Your task to perform on an android device: Go to notification settings Image 0: 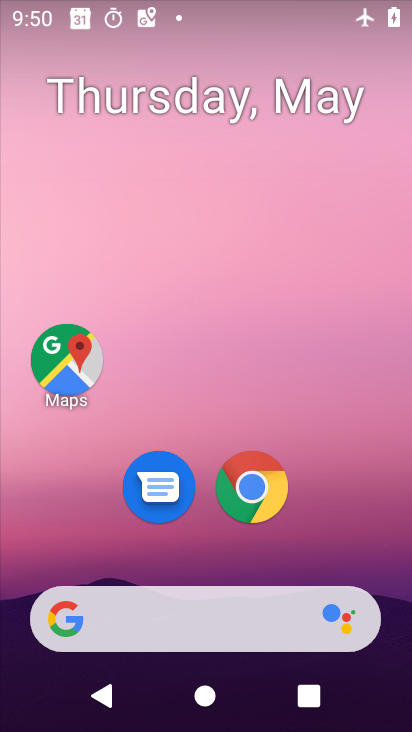
Step 0: drag from (220, 508) to (264, 20)
Your task to perform on an android device: Go to notification settings Image 1: 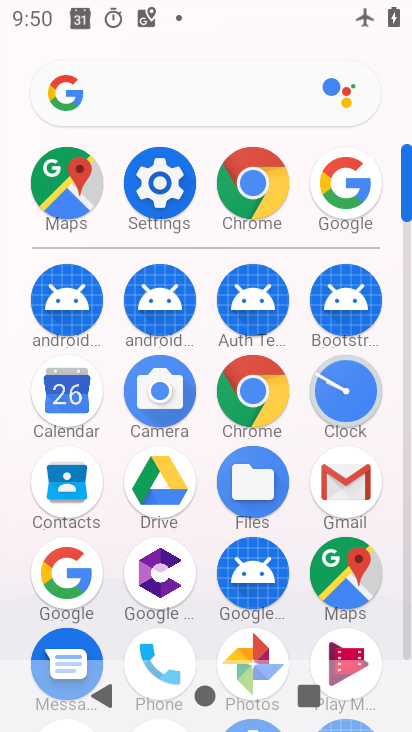
Step 1: click (184, 200)
Your task to perform on an android device: Go to notification settings Image 2: 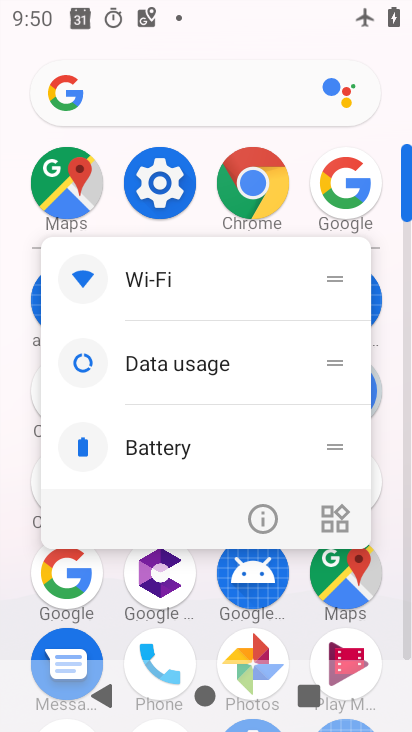
Step 2: click (183, 172)
Your task to perform on an android device: Go to notification settings Image 3: 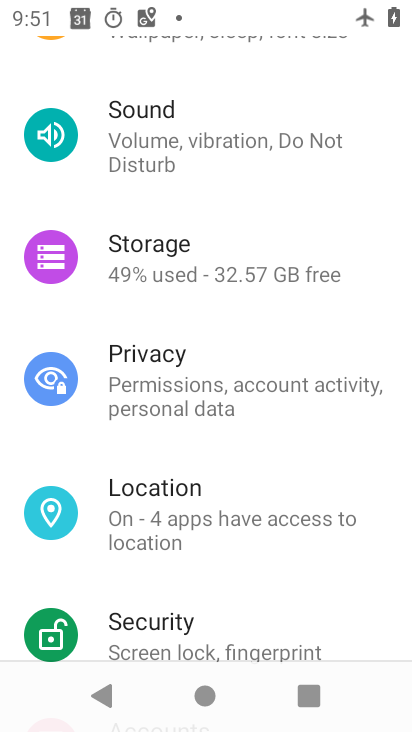
Step 3: drag from (210, 537) to (228, 729)
Your task to perform on an android device: Go to notification settings Image 4: 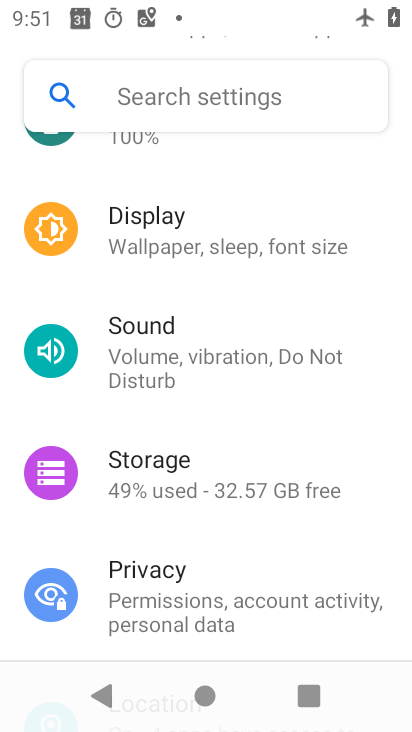
Step 4: drag from (226, 313) to (210, 722)
Your task to perform on an android device: Go to notification settings Image 5: 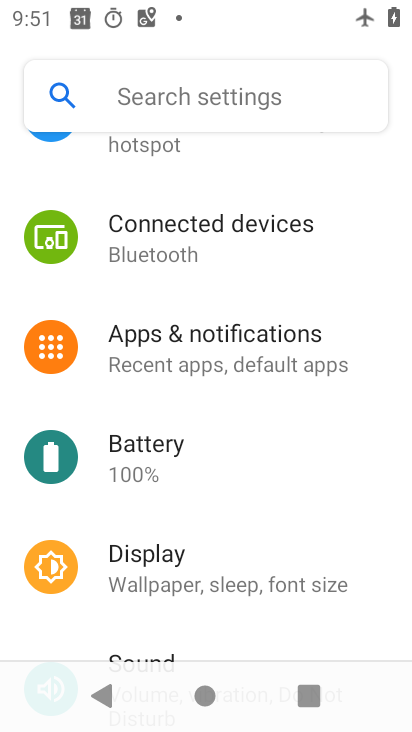
Step 5: click (201, 349)
Your task to perform on an android device: Go to notification settings Image 6: 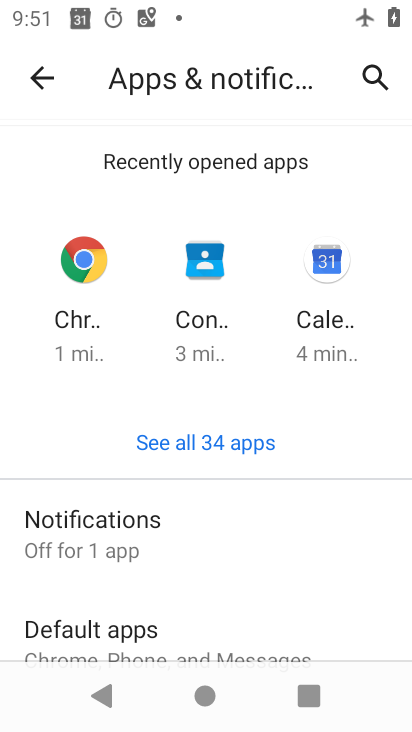
Step 6: click (102, 525)
Your task to perform on an android device: Go to notification settings Image 7: 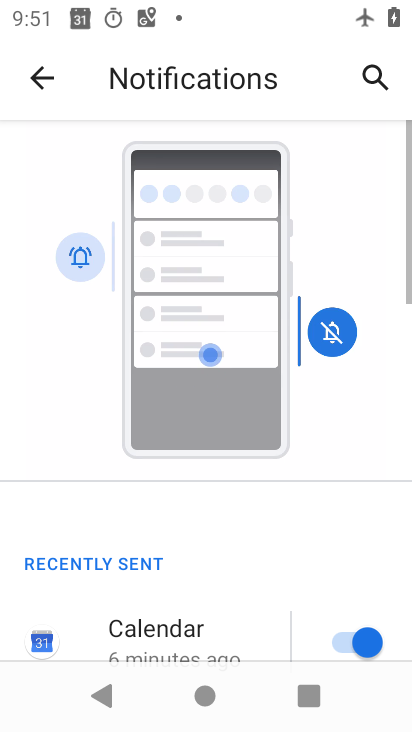
Step 7: task complete